Your task to perform on an android device: change notification settings in the gmail app Image 0: 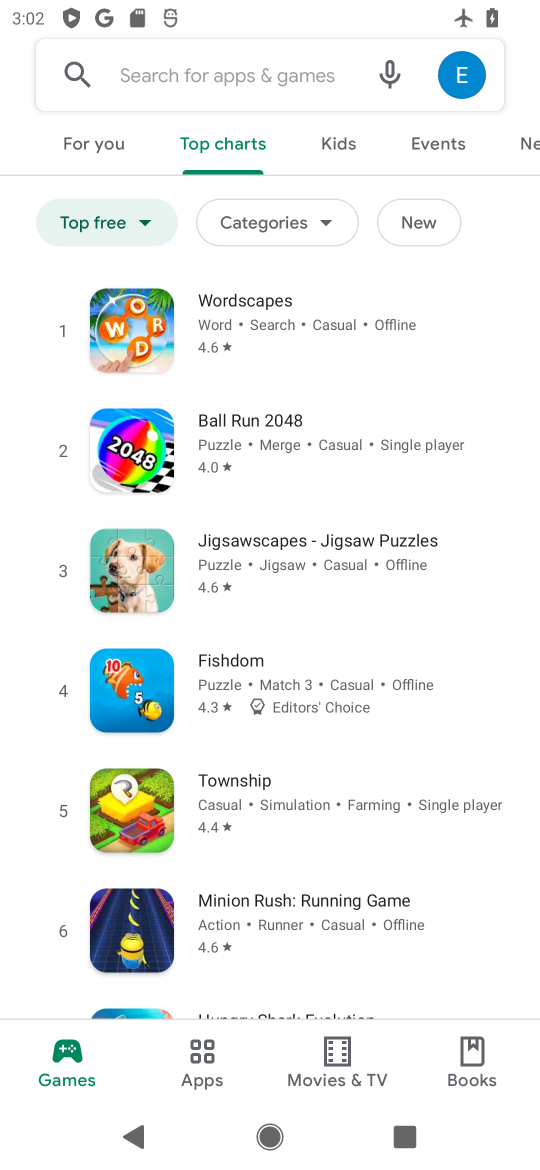
Step 0: press home button
Your task to perform on an android device: change notification settings in the gmail app Image 1: 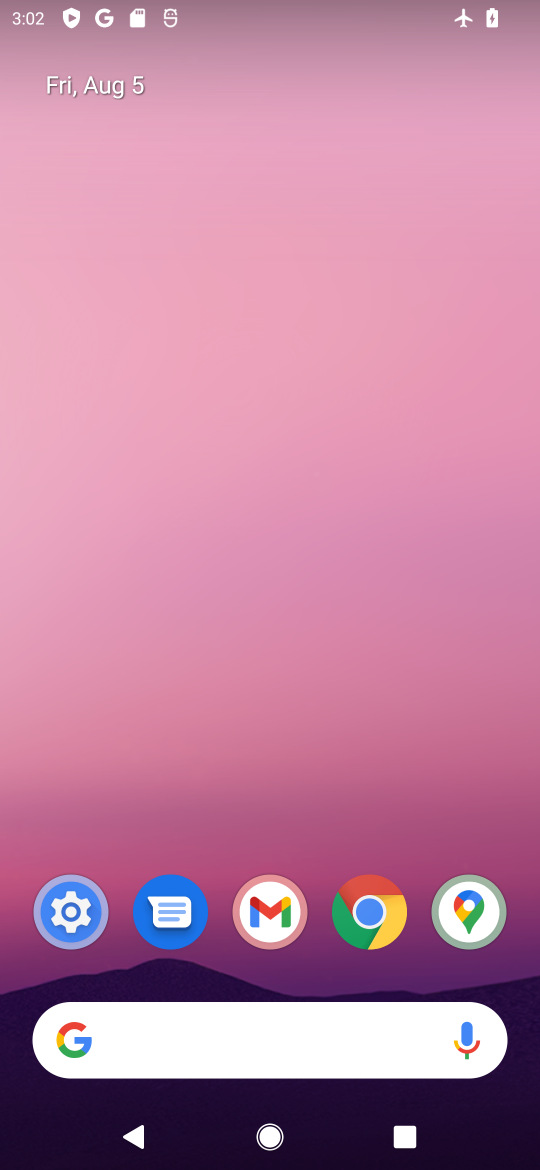
Step 1: click (267, 928)
Your task to perform on an android device: change notification settings in the gmail app Image 2: 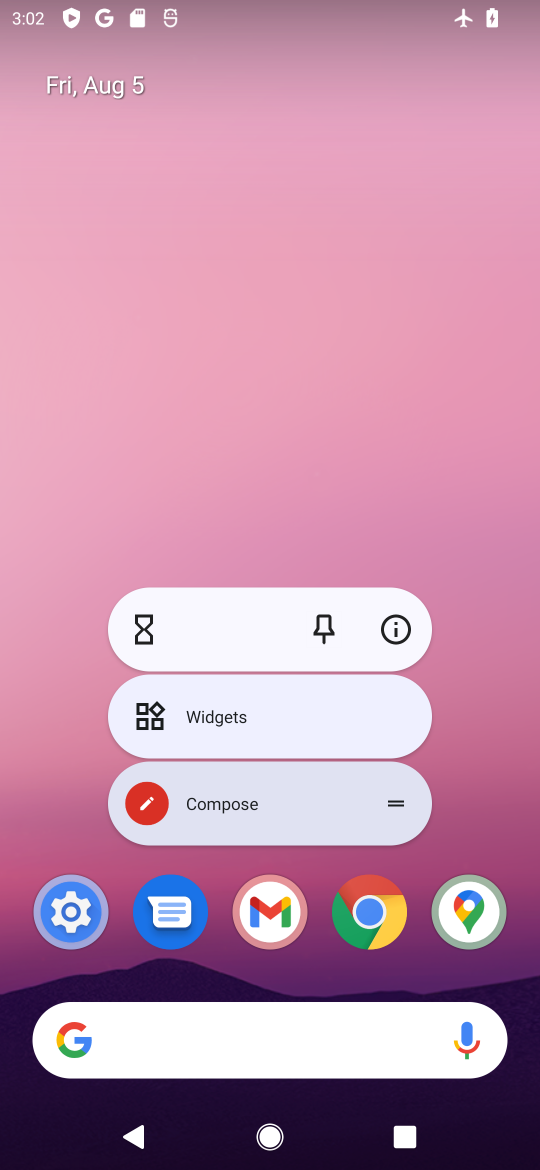
Step 2: click (263, 945)
Your task to perform on an android device: change notification settings in the gmail app Image 3: 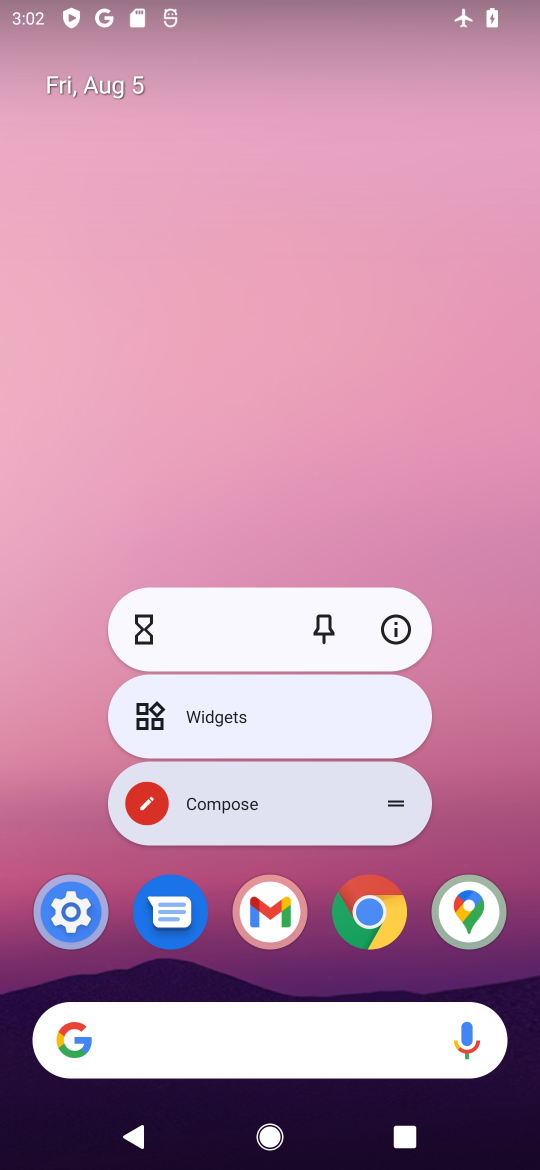
Step 3: click (263, 945)
Your task to perform on an android device: change notification settings in the gmail app Image 4: 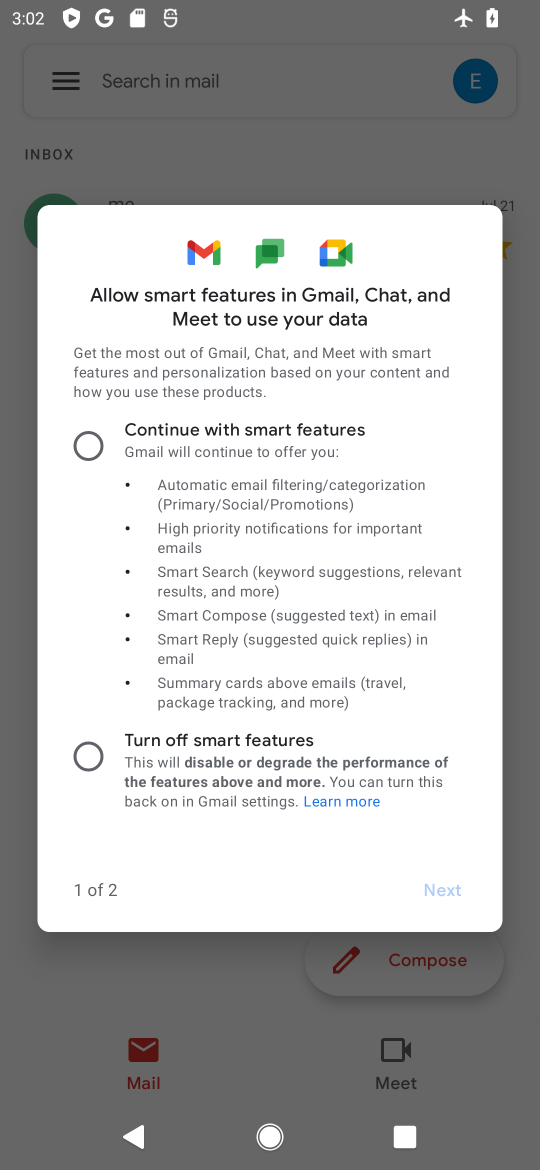
Step 4: click (88, 770)
Your task to perform on an android device: change notification settings in the gmail app Image 5: 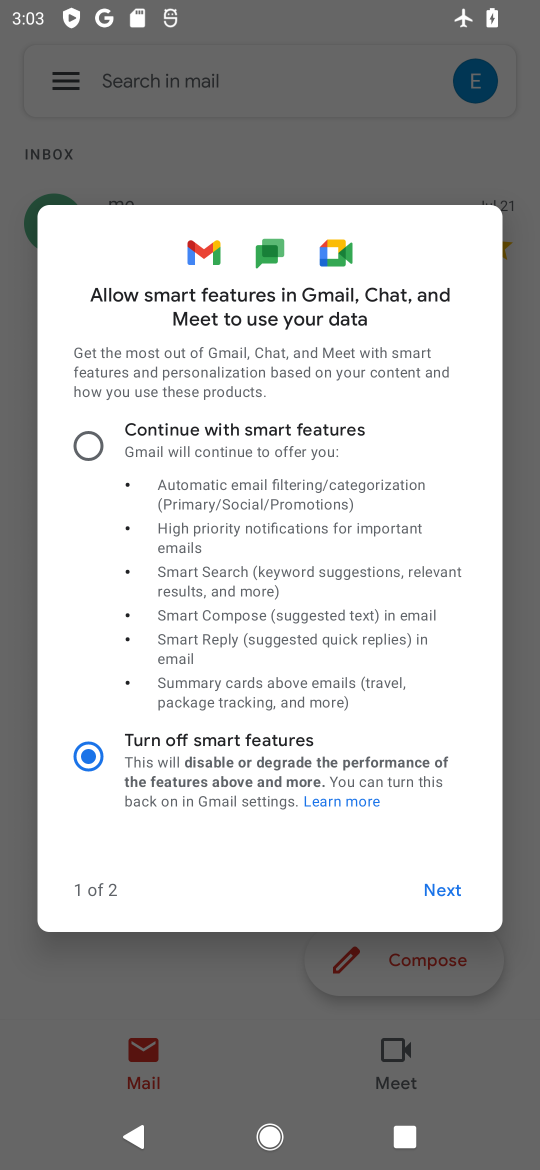
Step 5: click (87, 444)
Your task to perform on an android device: change notification settings in the gmail app Image 6: 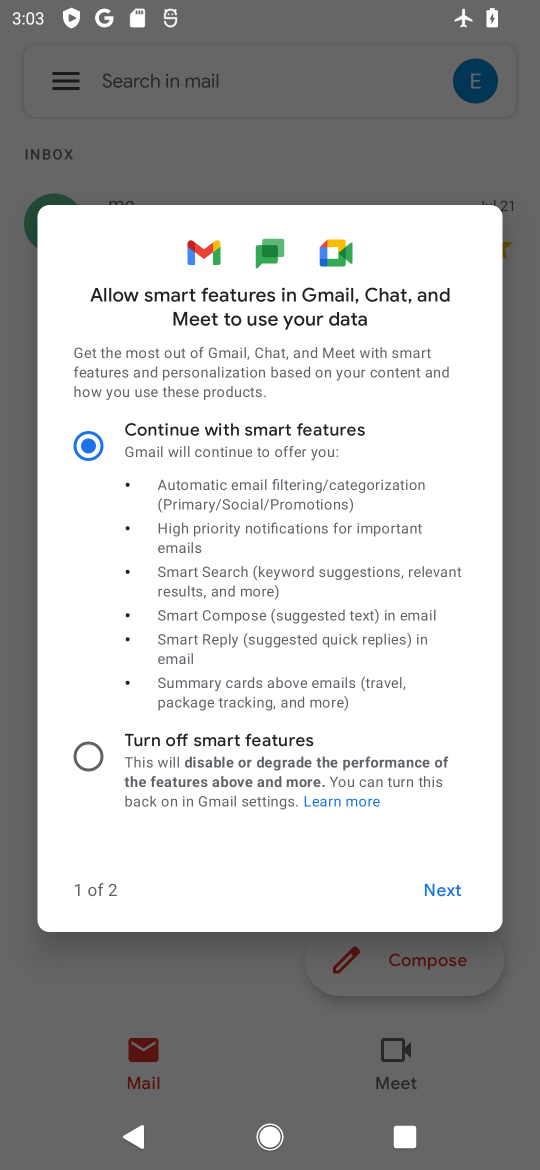
Step 6: click (437, 896)
Your task to perform on an android device: change notification settings in the gmail app Image 7: 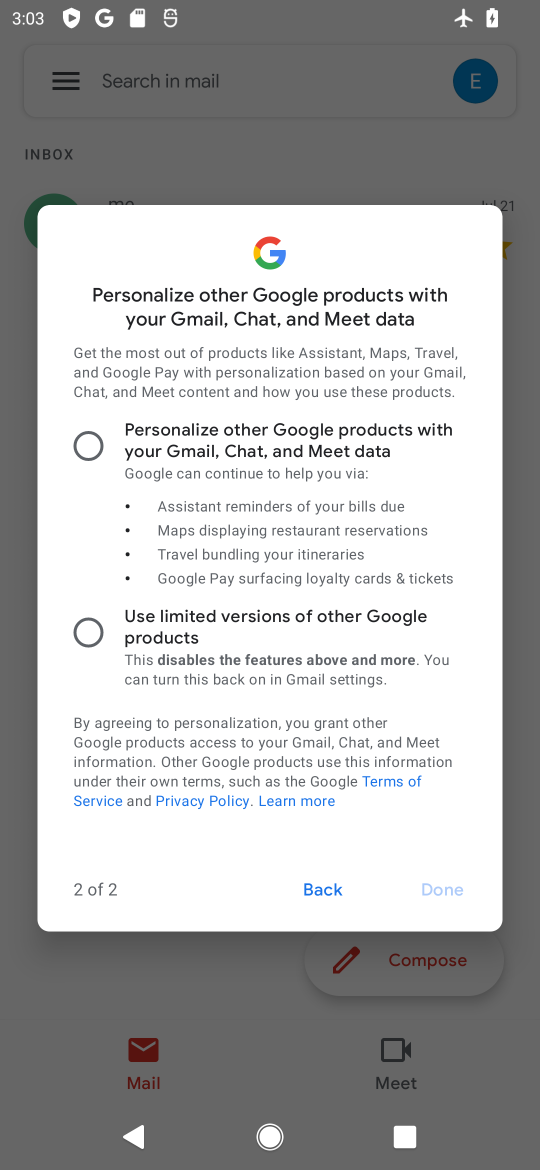
Step 7: click (107, 414)
Your task to perform on an android device: change notification settings in the gmail app Image 8: 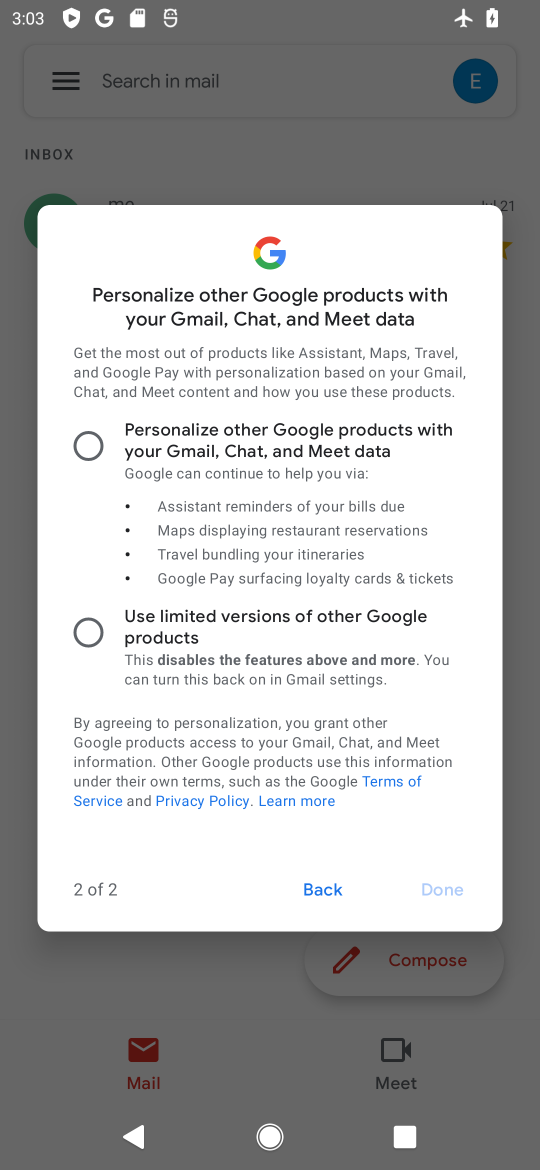
Step 8: click (89, 436)
Your task to perform on an android device: change notification settings in the gmail app Image 9: 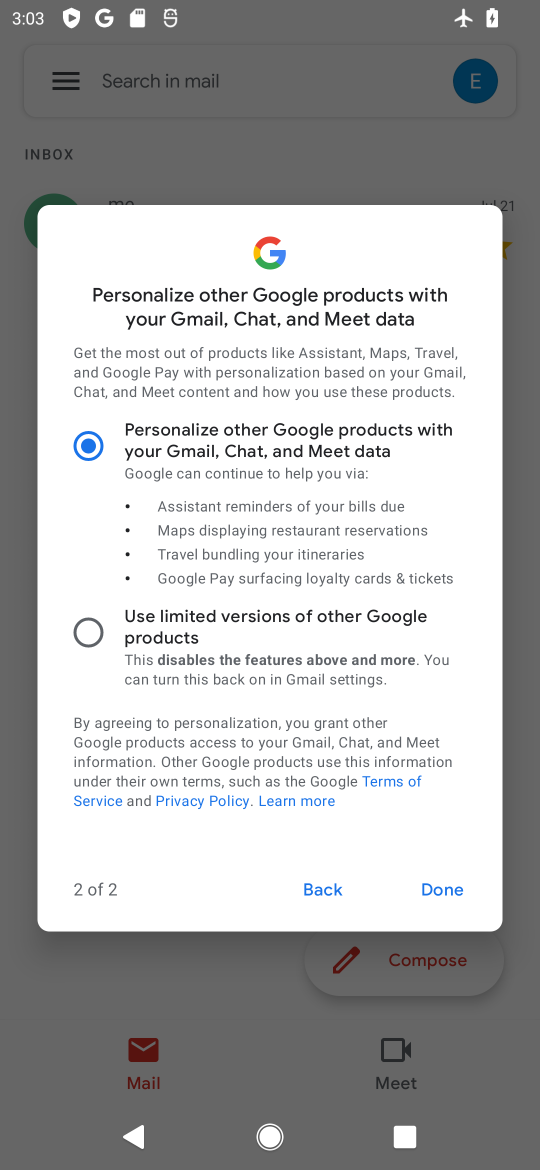
Step 9: click (465, 894)
Your task to perform on an android device: change notification settings in the gmail app Image 10: 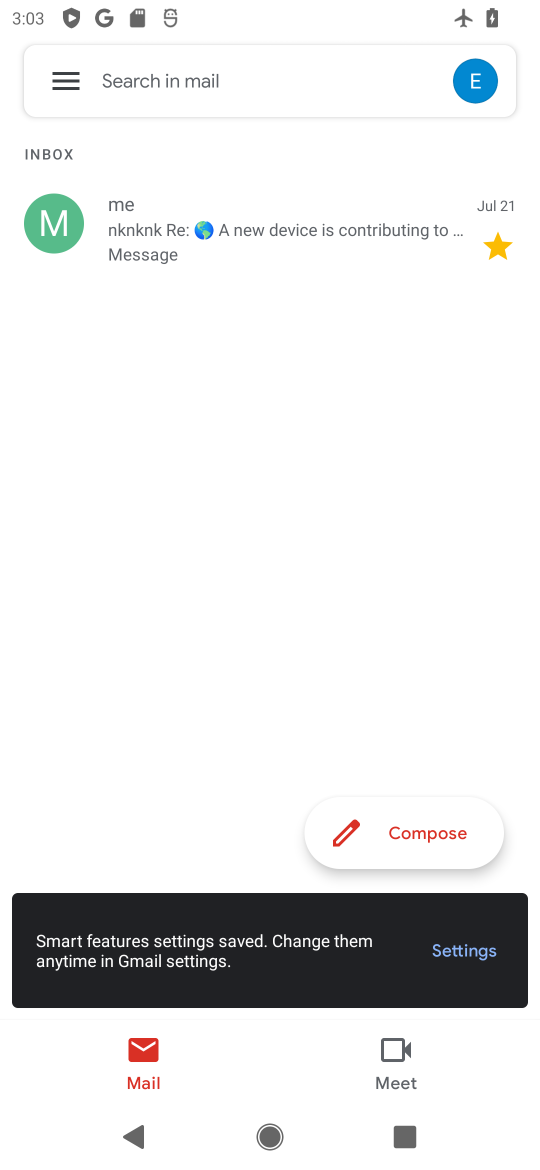
Step 10: click (60, 81)
Your task to perform on an android device: change notification settings in the gmail app Image 11: 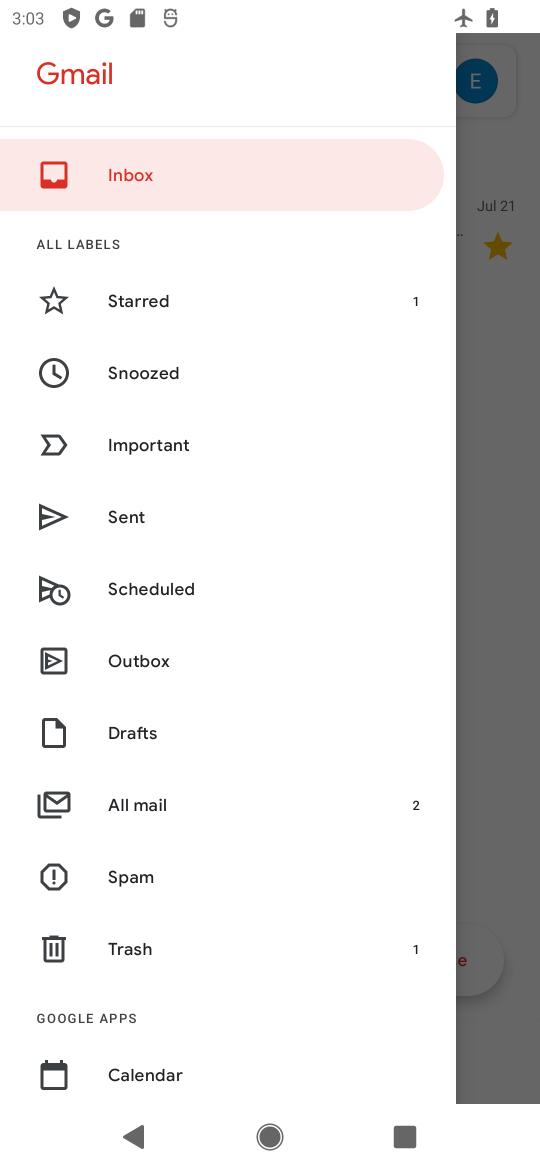
Step 11: drag from (131, 997) to (203, 230)
Your task to perform on an android device: change notification settings in the gmail app Image 12: 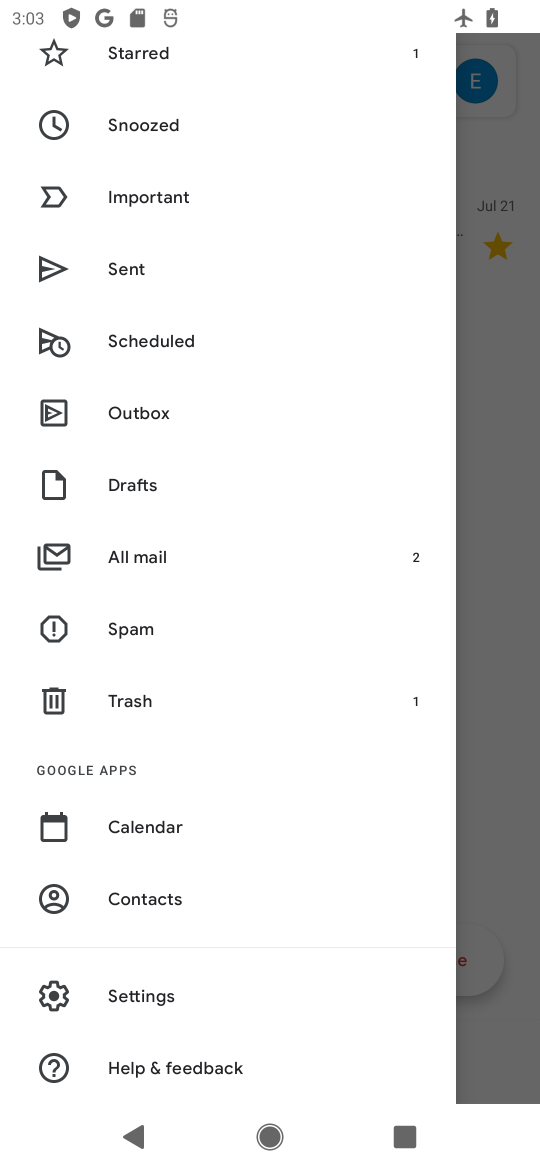
Step 12: click (148, 1000)
Your task to perform on an android device: change notification settings in the gmail app Image 13: 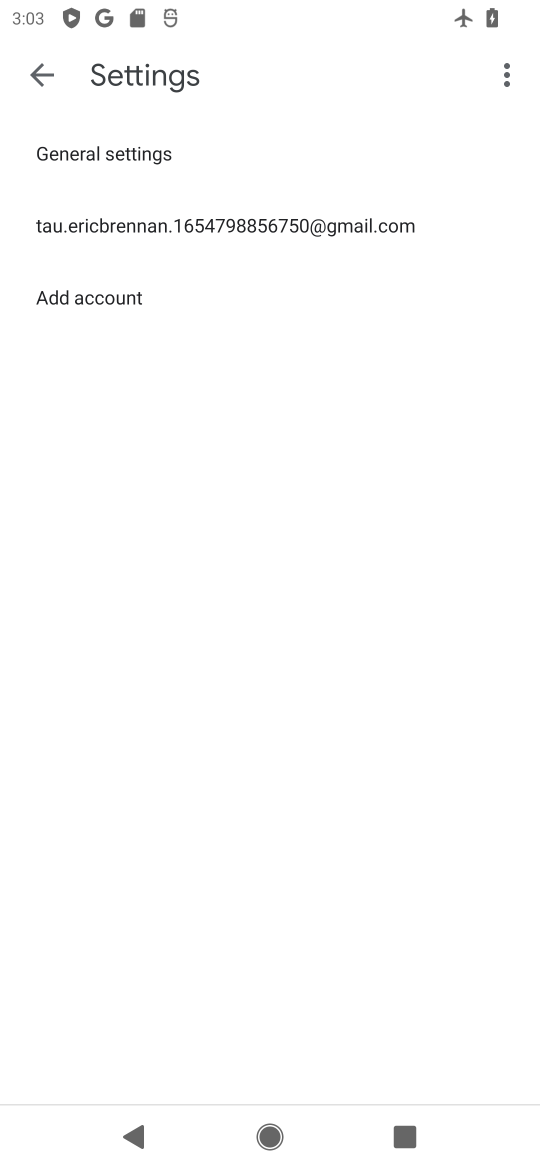
Step 13: click (122, 144)
Your task to perform on an android device: change notification settings in the gmail app Image 14: 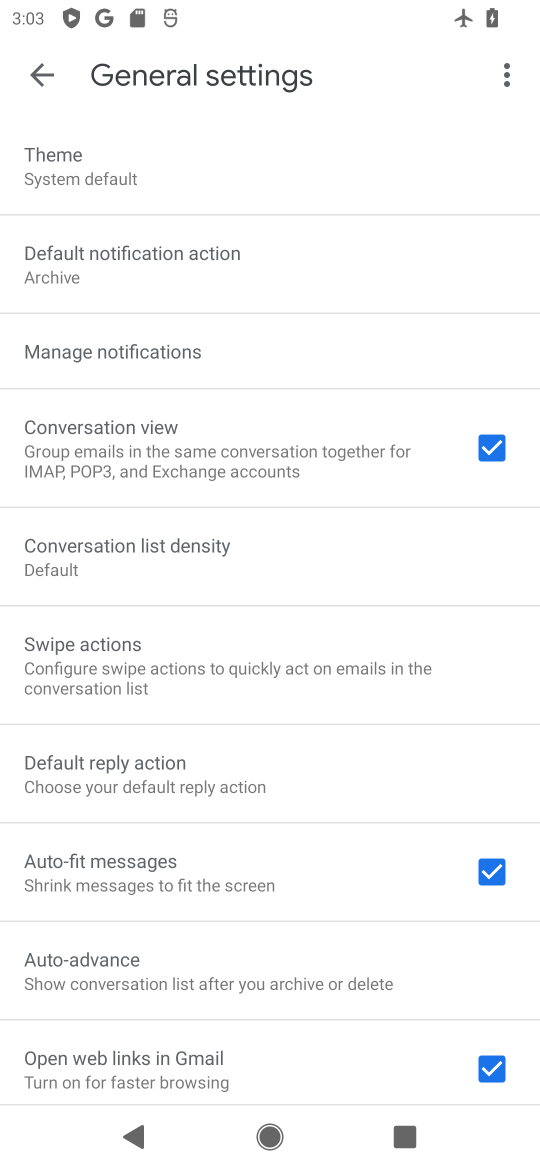
Step 14: click (119, 357)
Your task to perform on an android device: change notification settings in the gmail app Image 15: 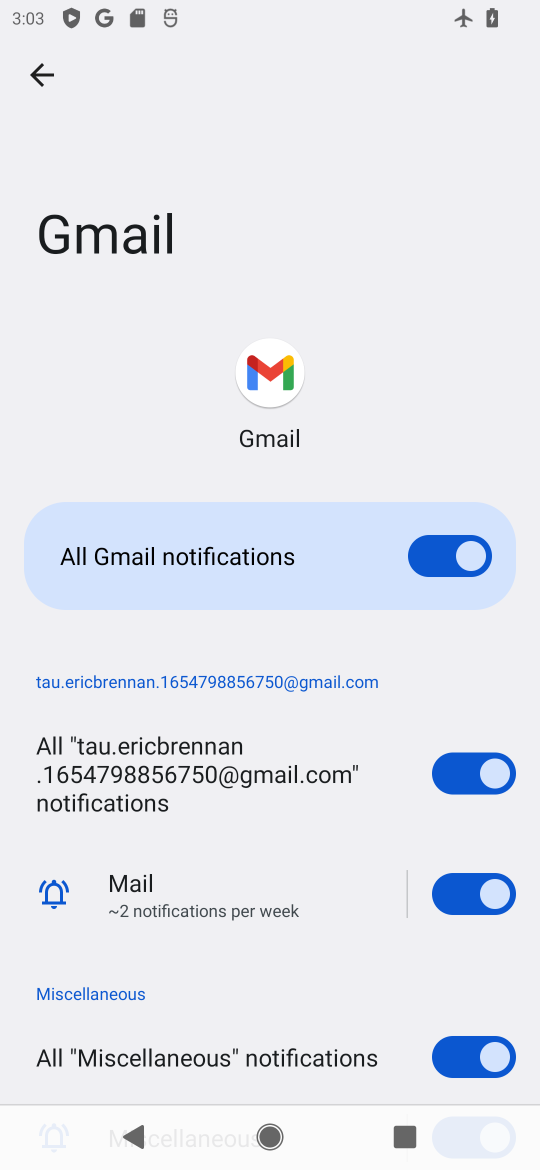
Step 15: task complete